Your task to perform on an android device: Clear the cart on ebay. Image 0: 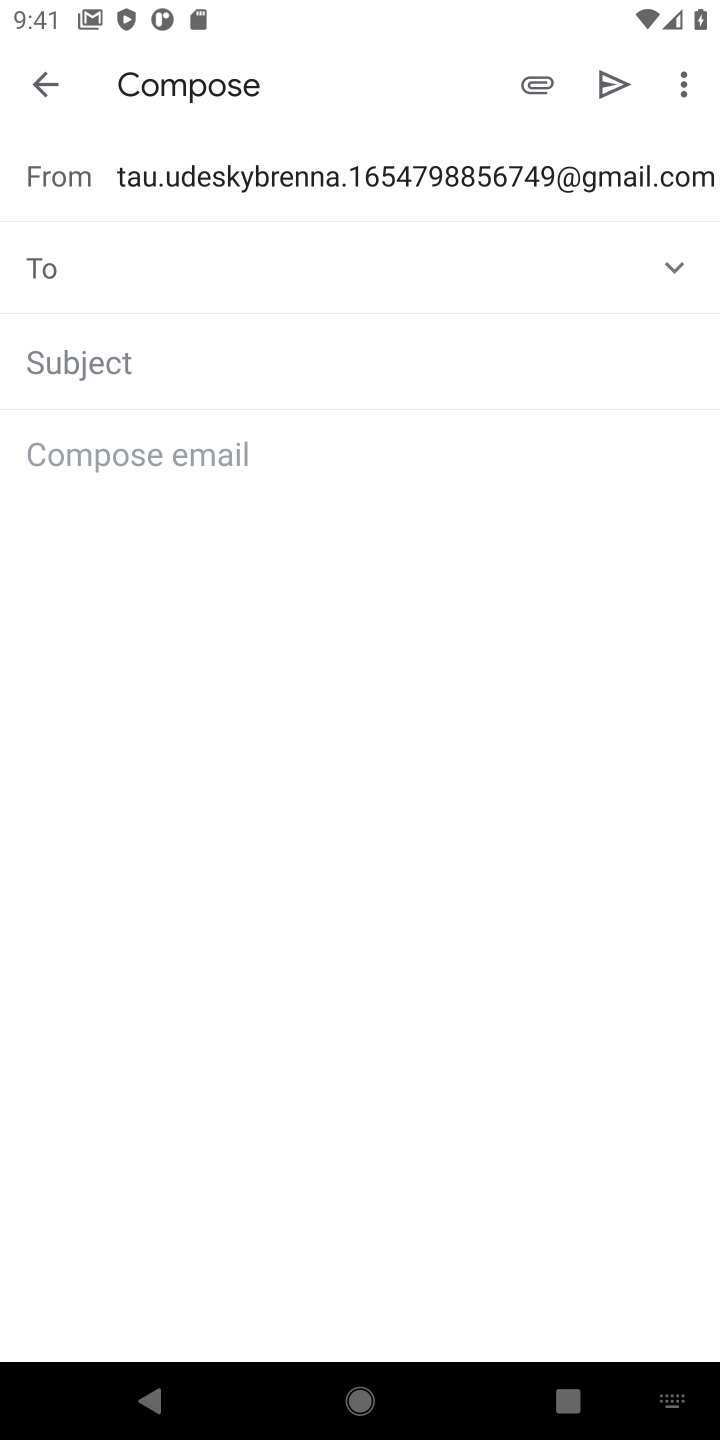
Step 0: press home button
Your task to perform on an android device: Clear the cart on ebay. Image 1: 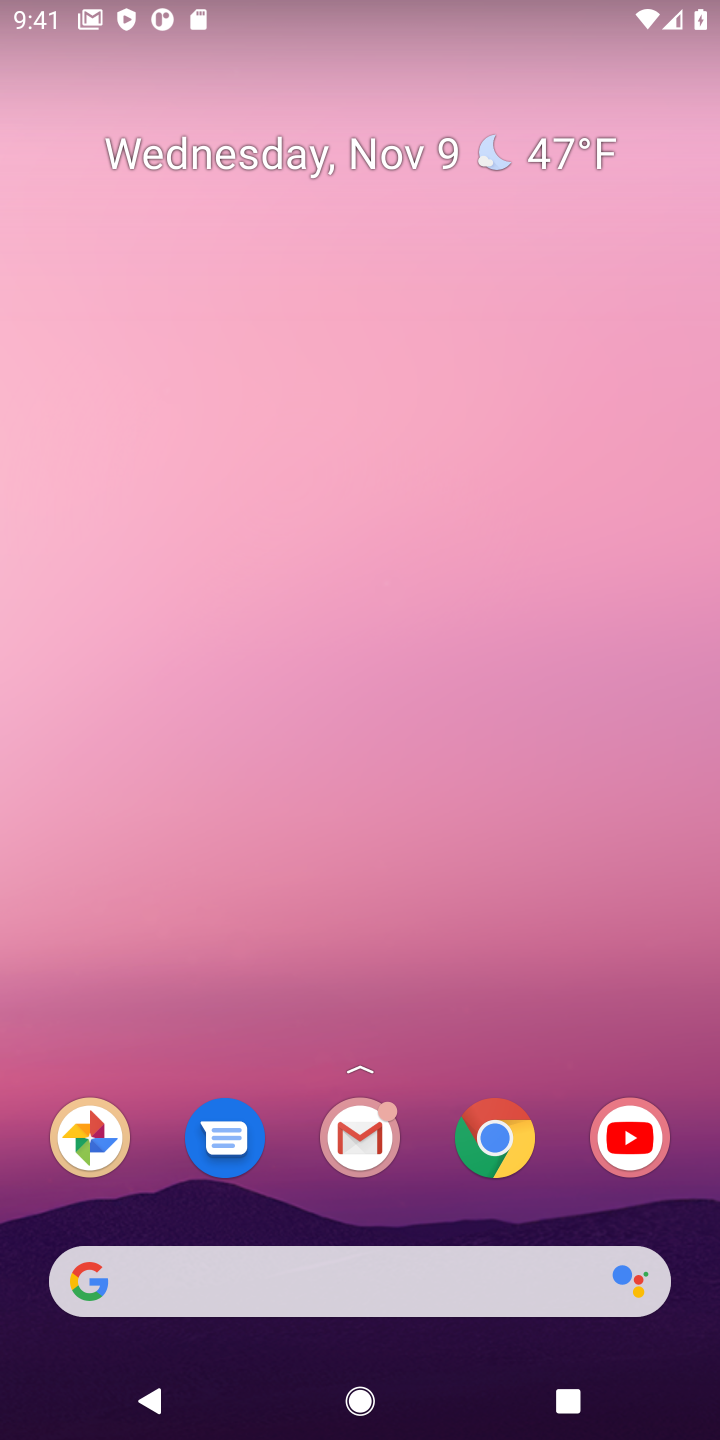
Step 1: drag from (436, 1234) to (423, 5)
Your task to perform on an android device: Clear the cart on ebay. Image 2: 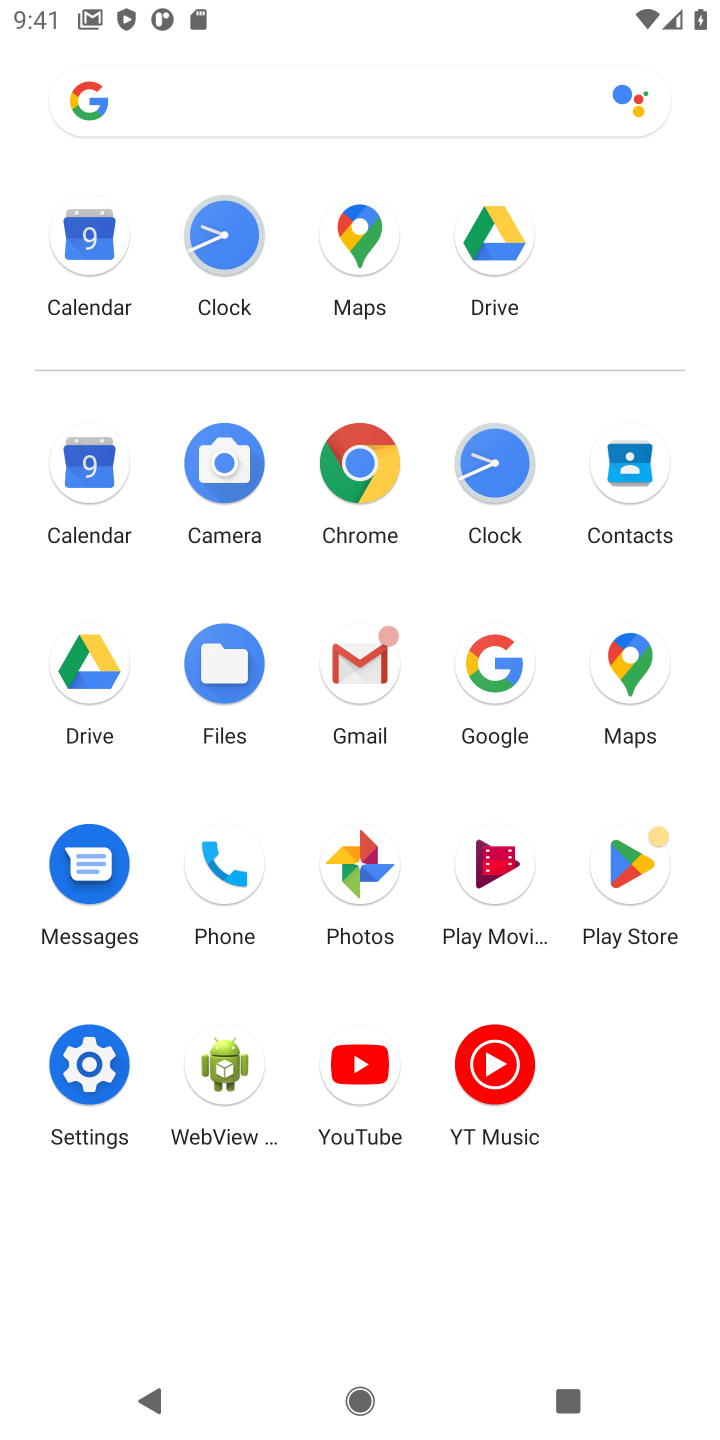
Step 2: click (361, 460)
Your task to perform on an android device: Clear the cart on ebay. Image 3: 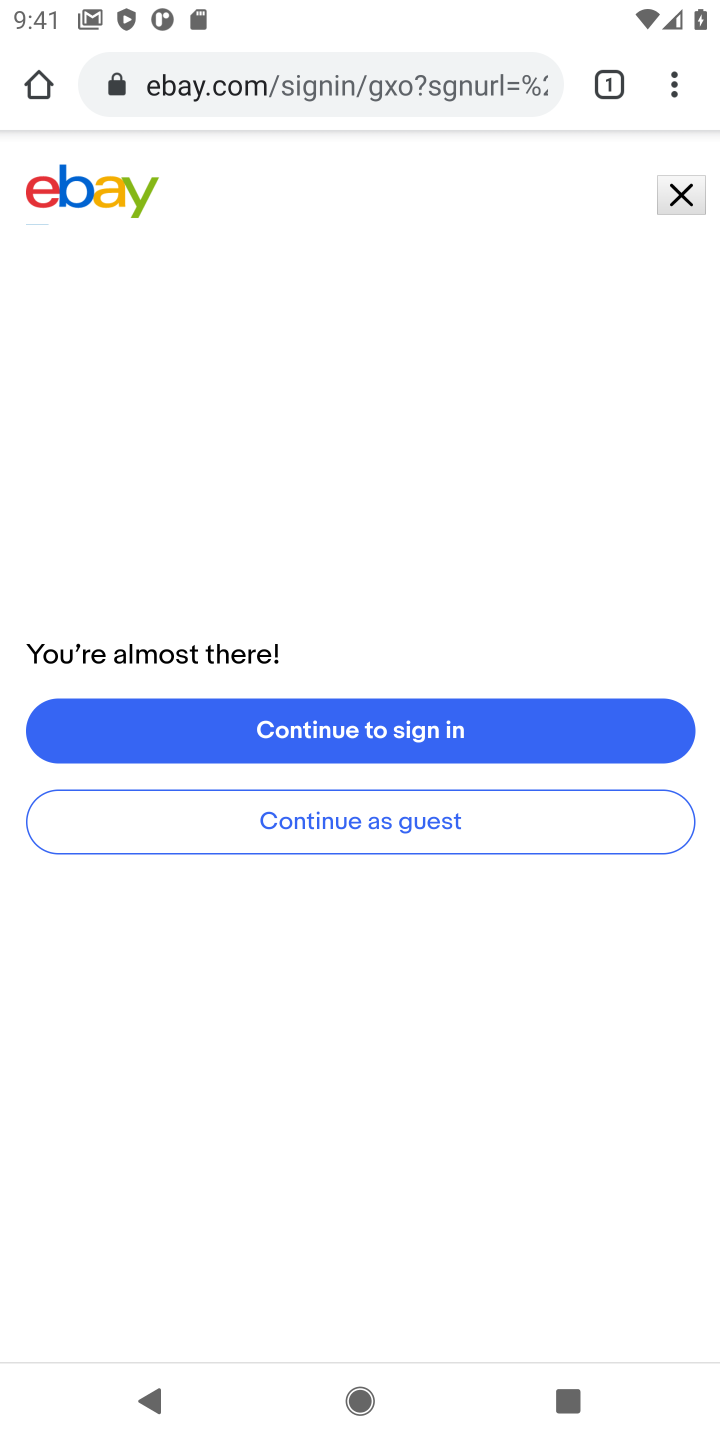
Step 3: click (461, 79)
Your task to perform on an android device: Clear the cart on ebay. Image 4: 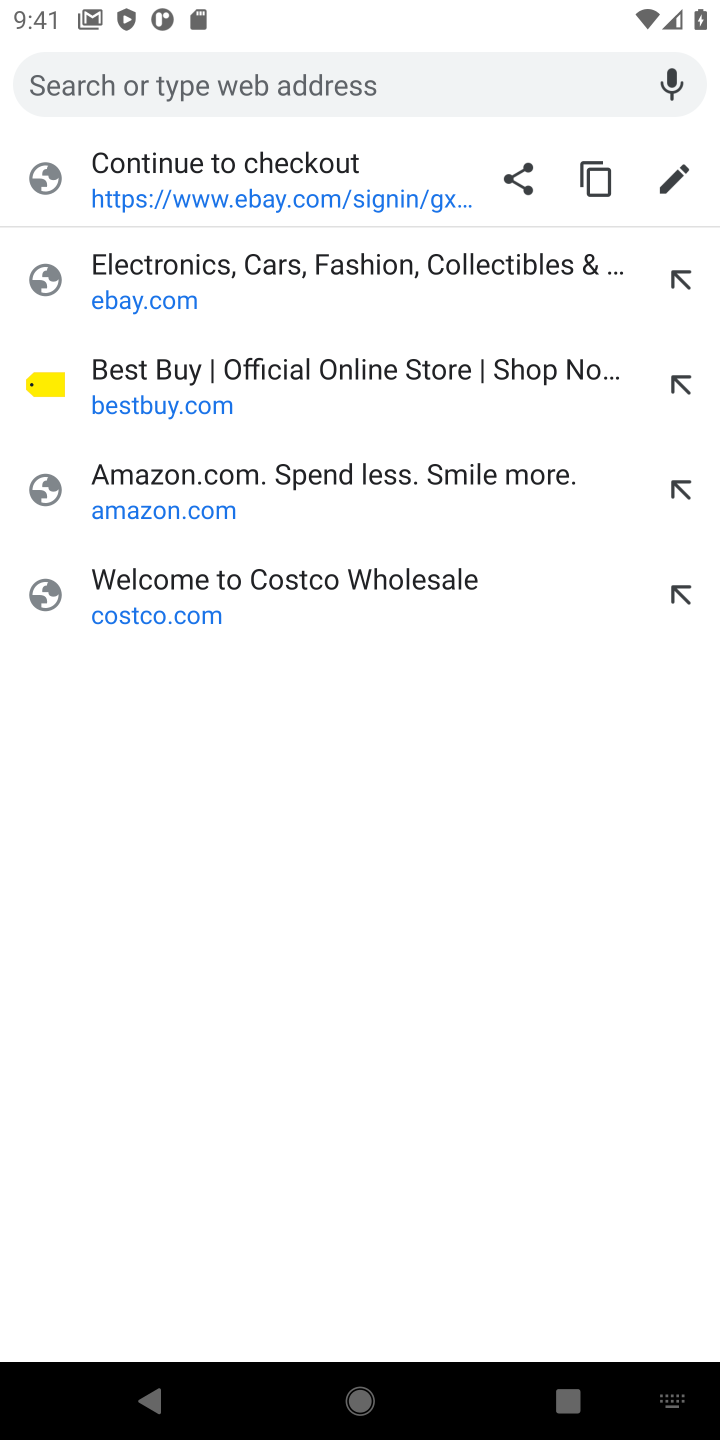
Step 4: type "ebay.com"
Your task to perform on an android device: Clear the cart on ebay. Image 5: 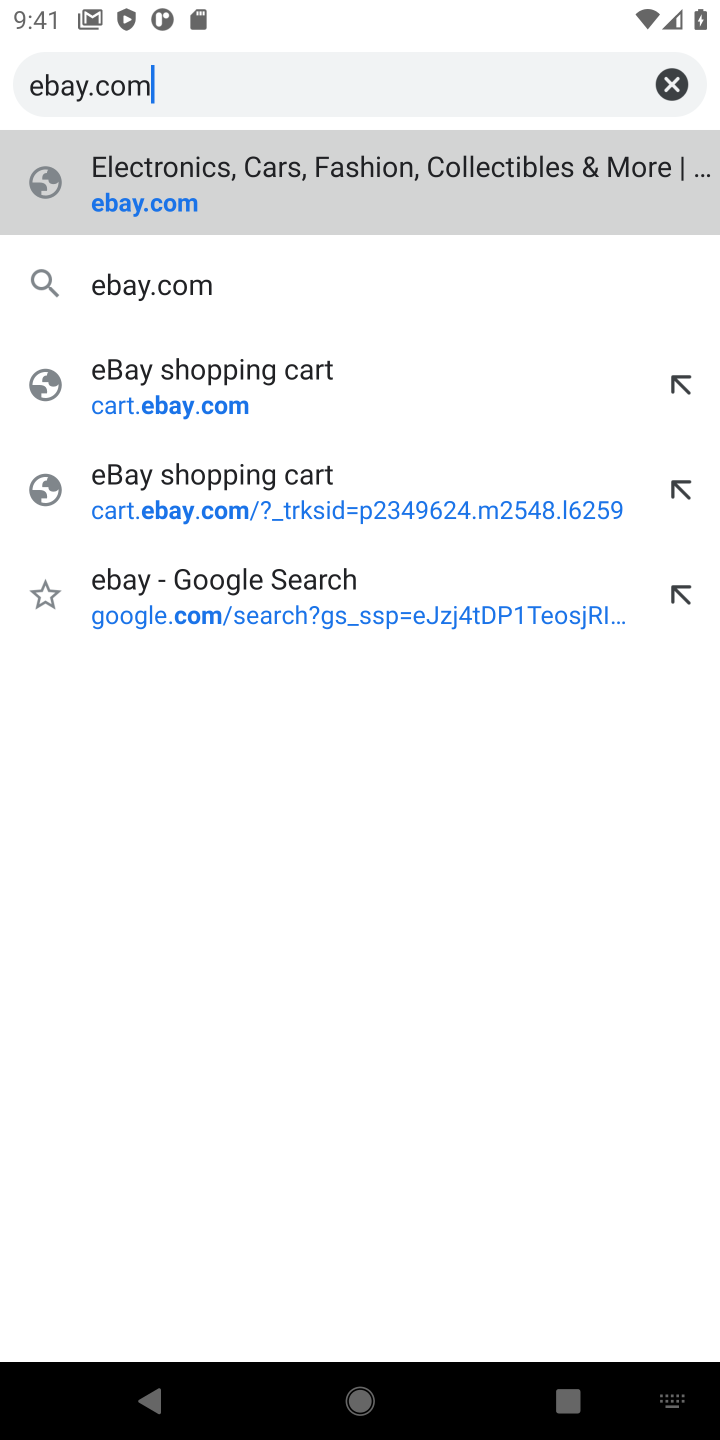
Step 5: press enter
Your task to perform on an android device: Clear the cart on ebay. Image 6: 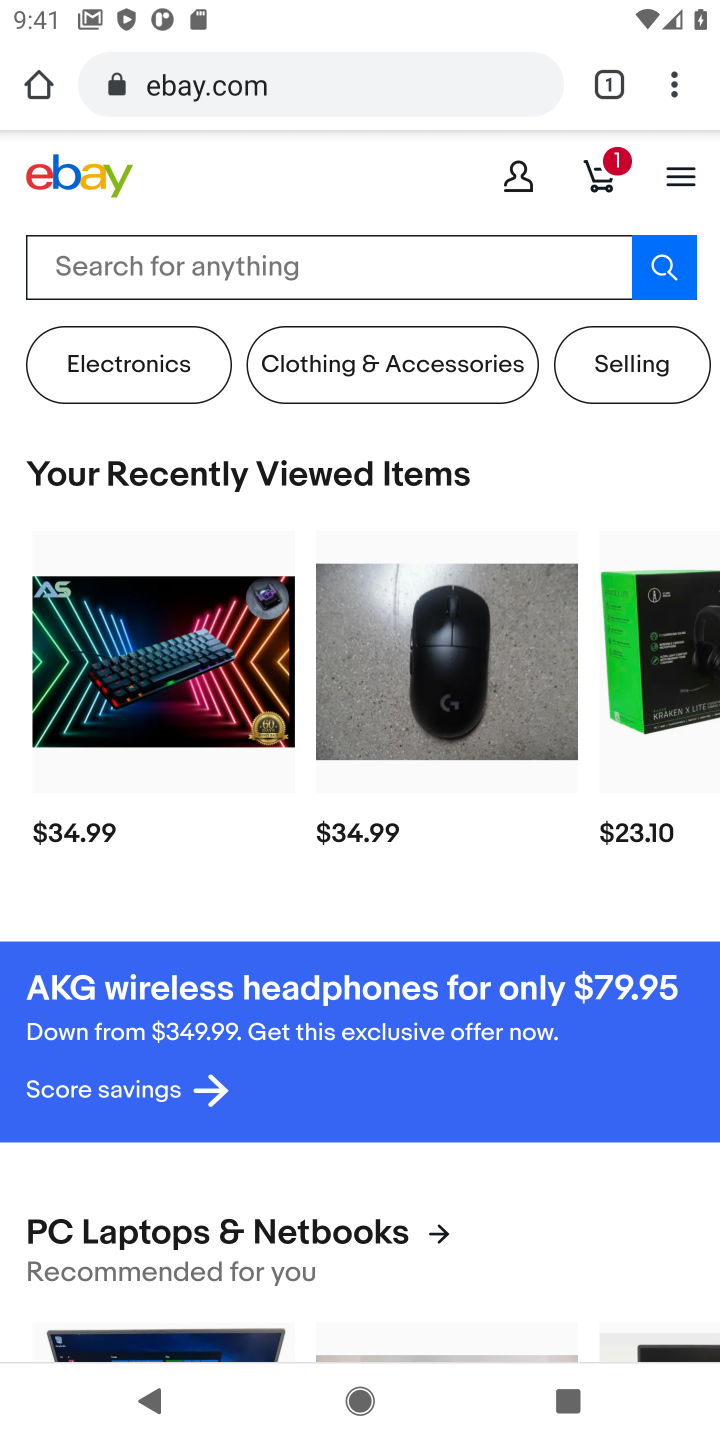
Step 6: click (616, 167)
Your task to perform on an android device: Clear the cart on ebay. Image 7: 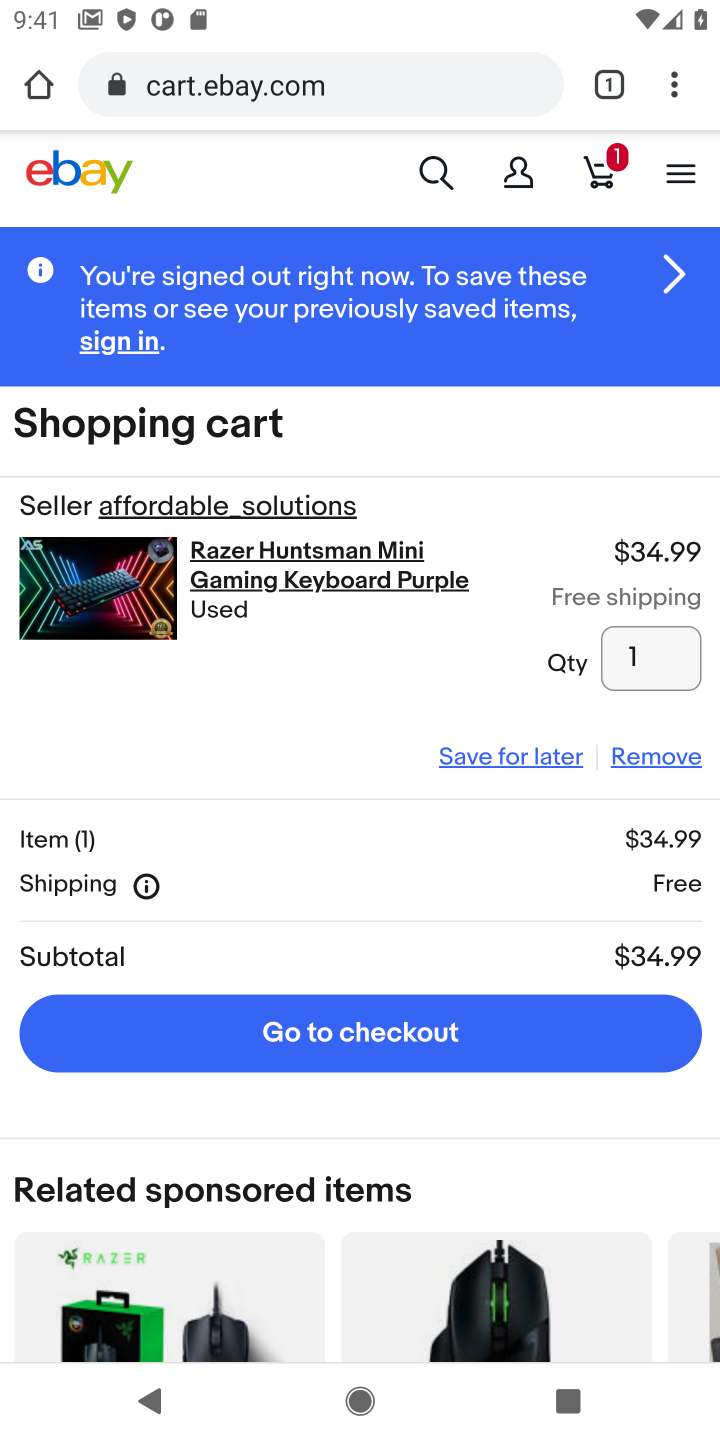
Step 7: click (663, 758)
Your task to perform on an android device: Clear the cart on ebay. Image 8: 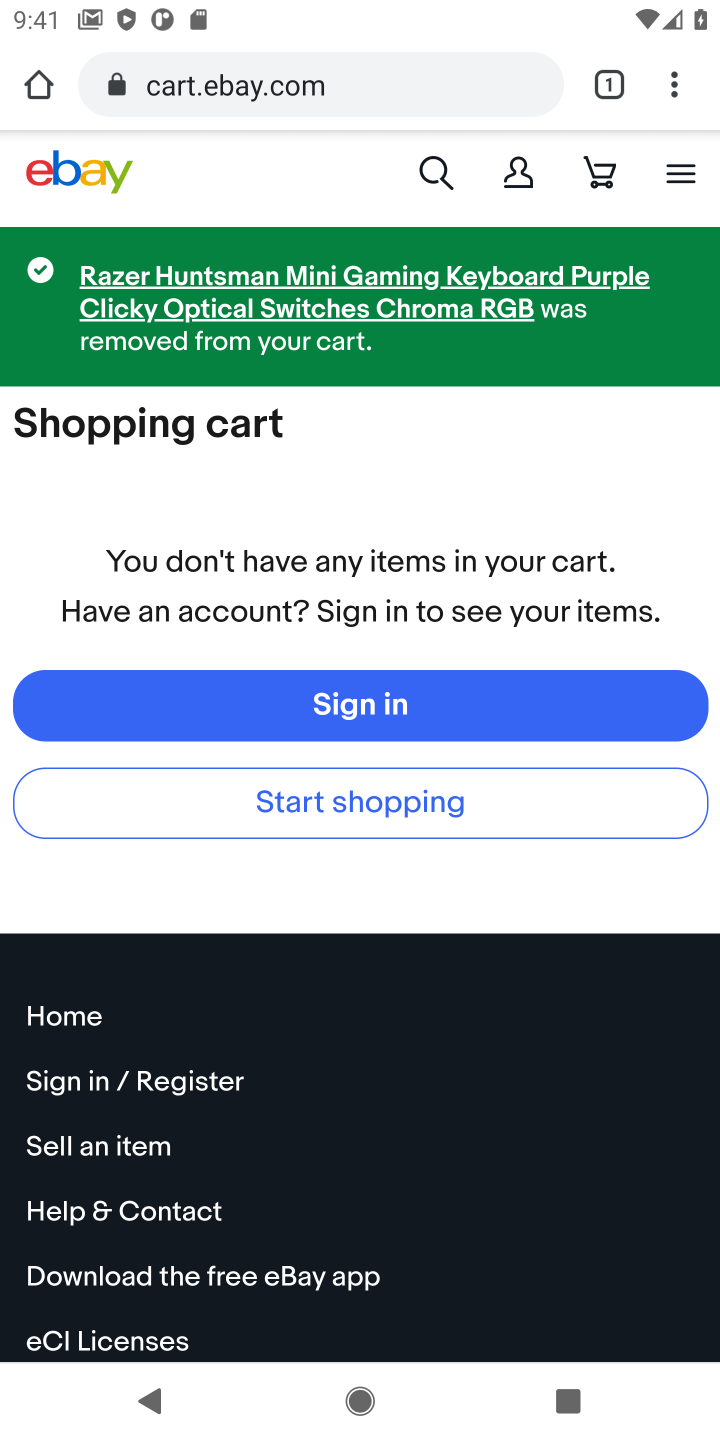
Step 8: task complete